Your task to perform on an android device: Open Android settings Image 0: 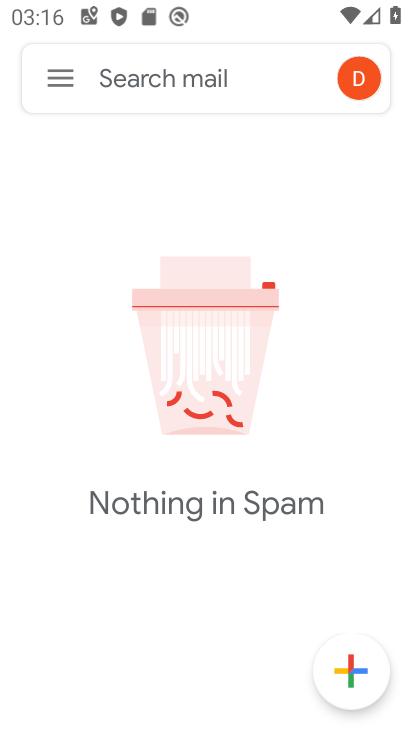
Step 0: press back button
Your task to perform on an android device: Open Android settings Image 1: 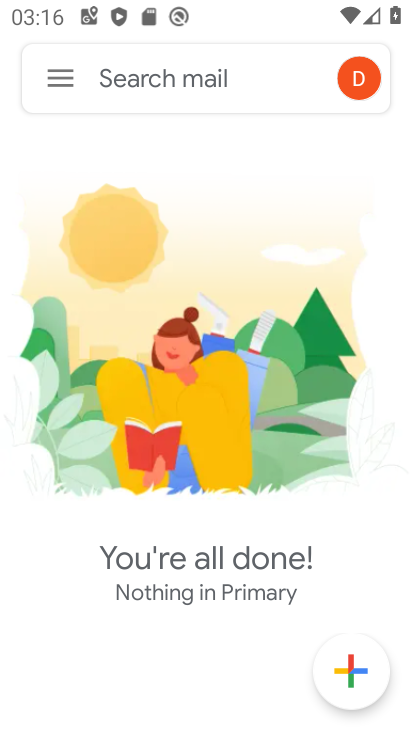
Step 1: press back button
Your task to perform on an android device: Open Android settings Image 2: 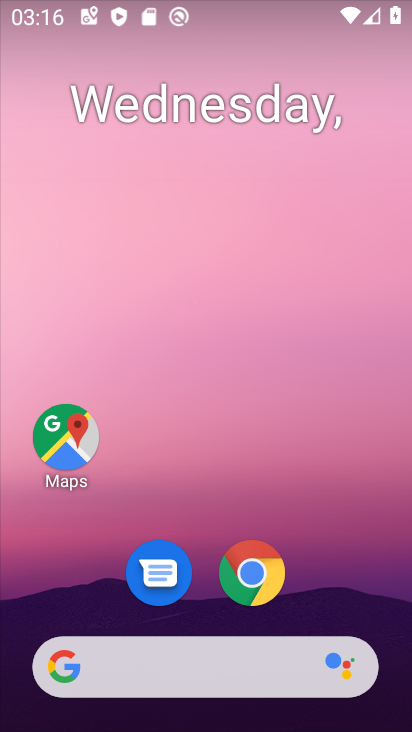
Step 2: drag from (322, 586) to (240, 95)
Your task to perform on an android device: Open Android settings Image 3: 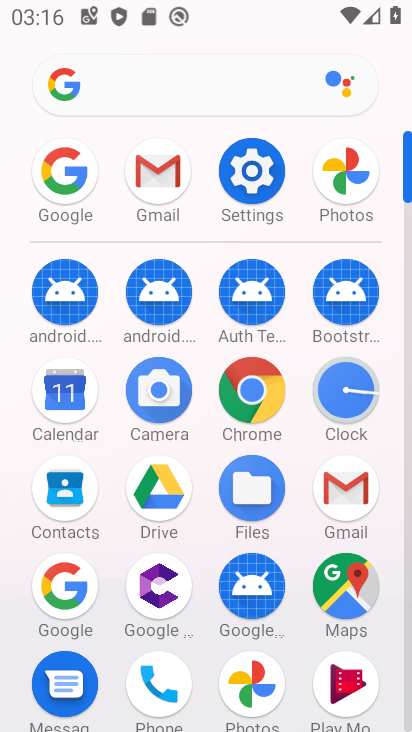
Step 3: click (248, 173)
Your task to perform on an android device: Open Android settings Image 4: 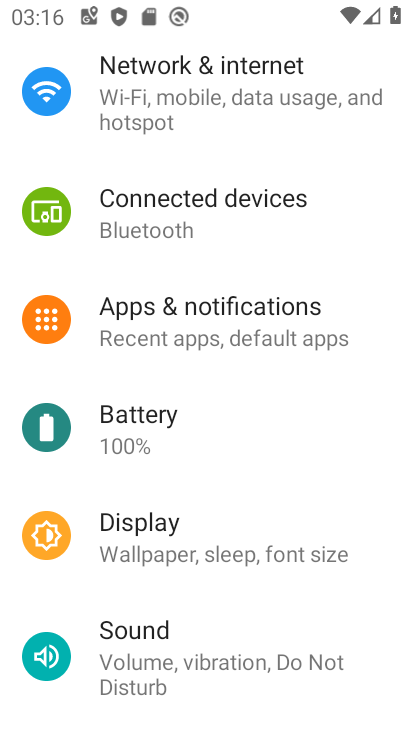
Step 4: task complete